Your task to perform on an android device: Open accessibility settings Image 0: 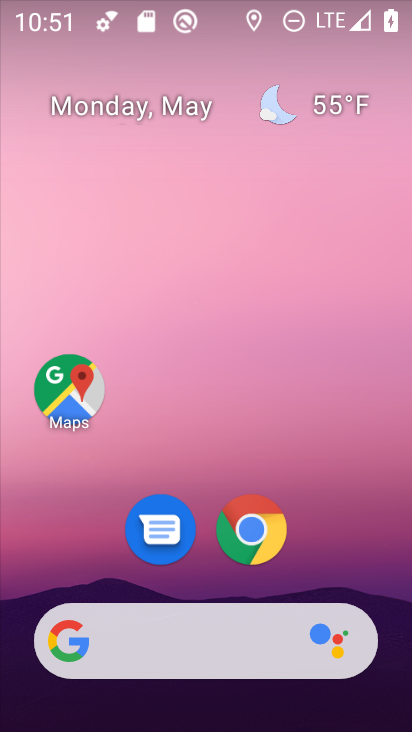
Step 0: drag from (141, 626) to (155, 204)
Your task to perform on an android device: Open accessibility settings Image 1: 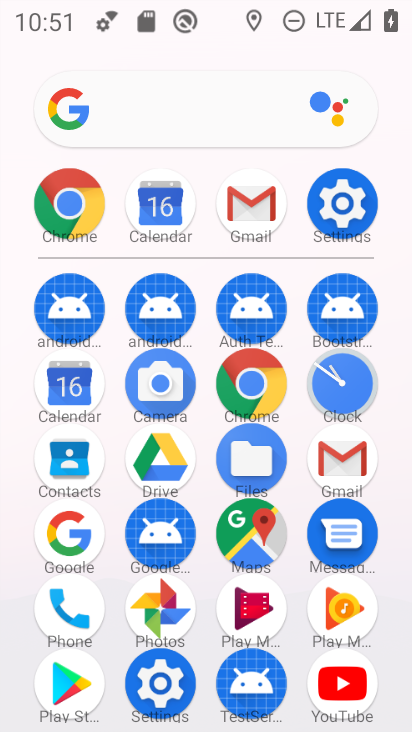
Step 1: click (344, 205)
Your task to perform on an android device: Open accessibility settings Image 2: 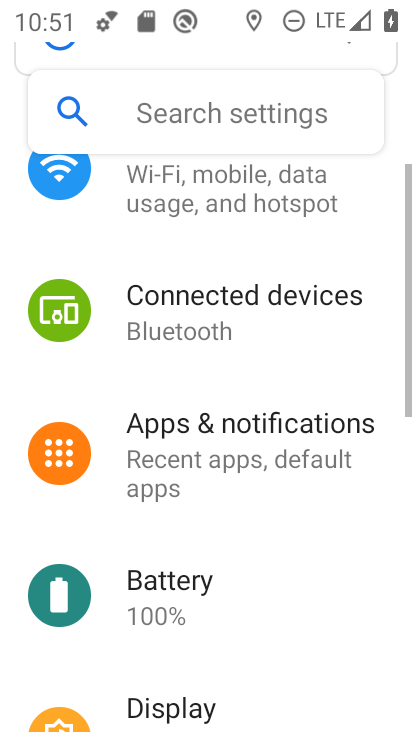
Step 2: drag from (189, 634) to (182, 163)
Your task to perform on an android device: Open accessibility settings Image 3: 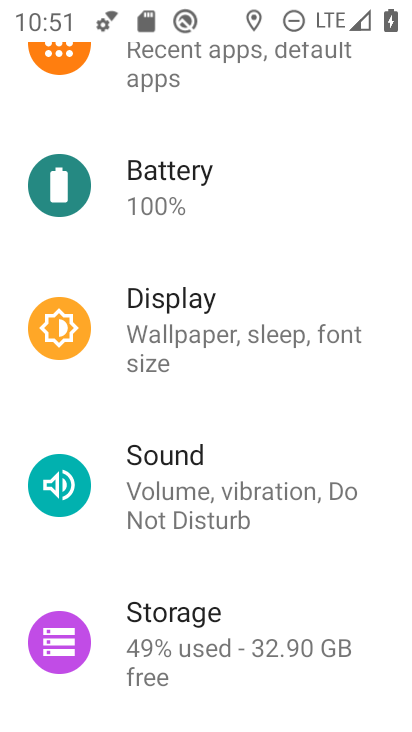
Step 3: drag from (243, 598) to (253, 126)
Your task to perform on an android device: Open accessibility settings Image 4: 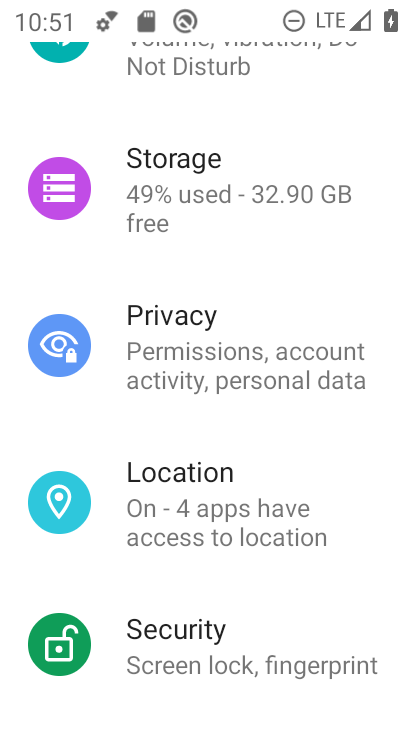
Step 4: drag from (166, 609) to (175, 64)
Your task to perform on an android device: Open accessibility settings Image 5: 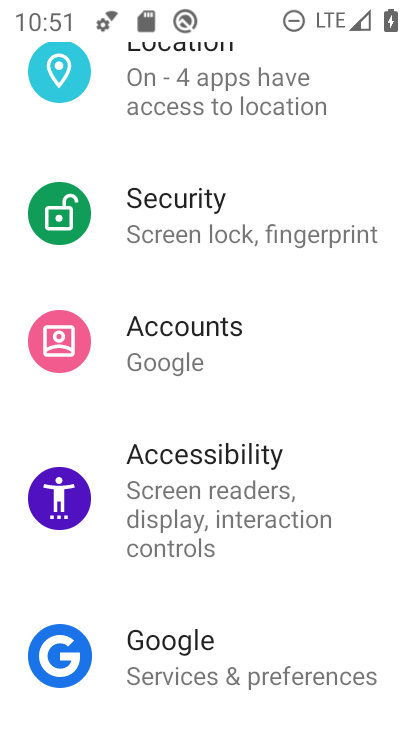
Step 5: click (207, 511)
Your task to perform on an android device: Open accessibility settings Image 6: 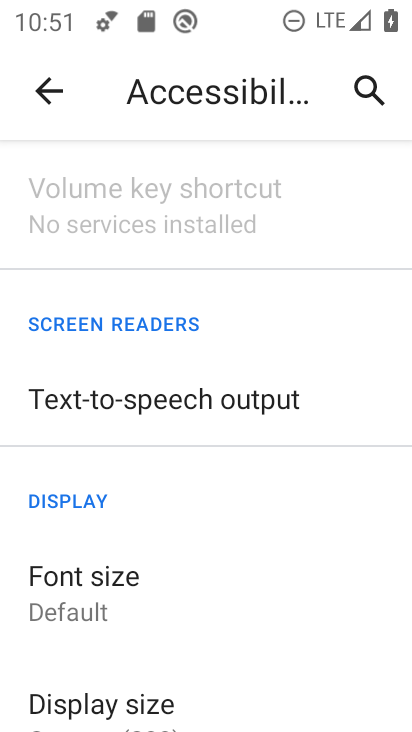
Step 6: task complete